Your task to perform on an android device: Go to CNN.com Image 0: 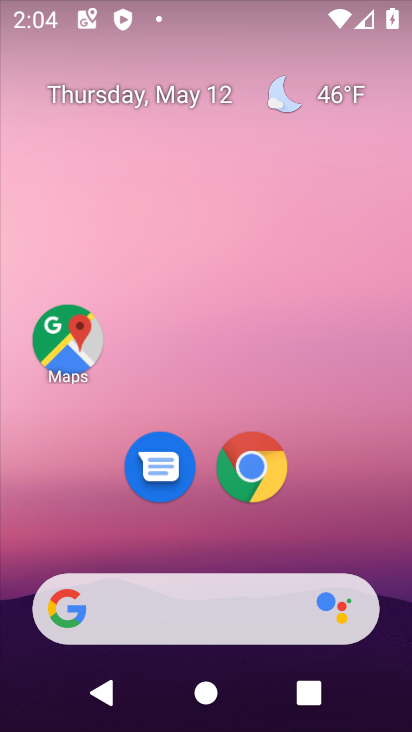
Step 0: drag from (314, 533) to (304, 490)
Your task to perform on an android device: Go to CNN.com Image 1: 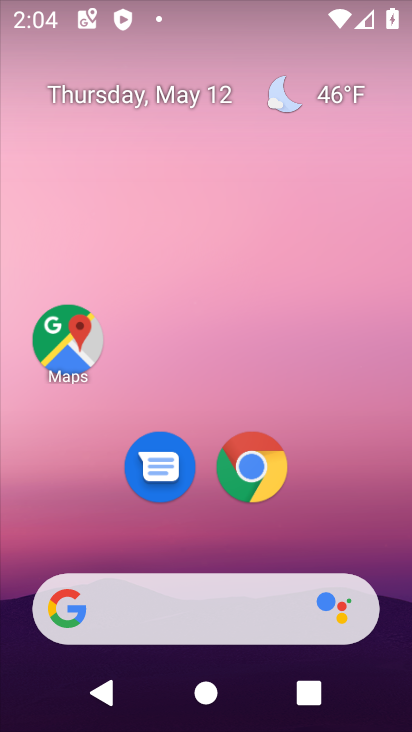
Step 1: click (267, 465)
Your task to perform on an android device: Go to CNN.com Image 2: 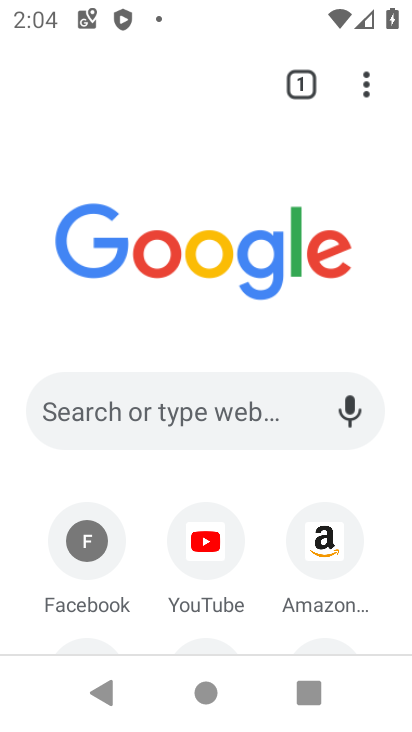
Step 2: click (354, 372)
Your task to perform on an android device: Go to CNN.com Image 3: 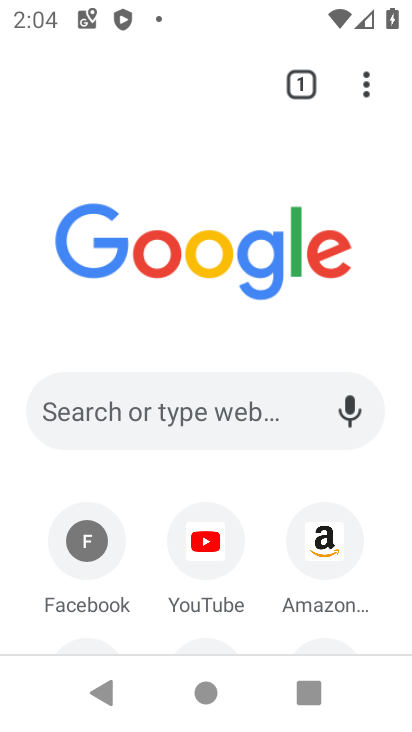
Step 3: click (318, 386)
Your task to perform on an android device: Go to CNN.com Image 4: 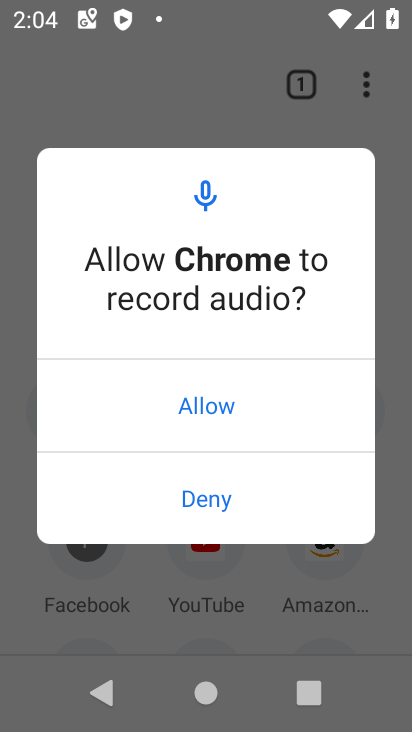
Step 4: click (333, 395)
Your task to perform on an android device: Go to CNN.com Image 5: 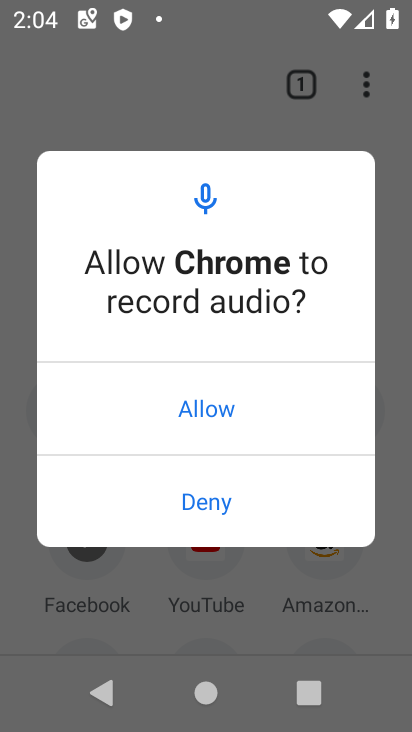
Step 5: click (333, 395)
Your task to perform on an android device: Go to CNN.com Image 6: 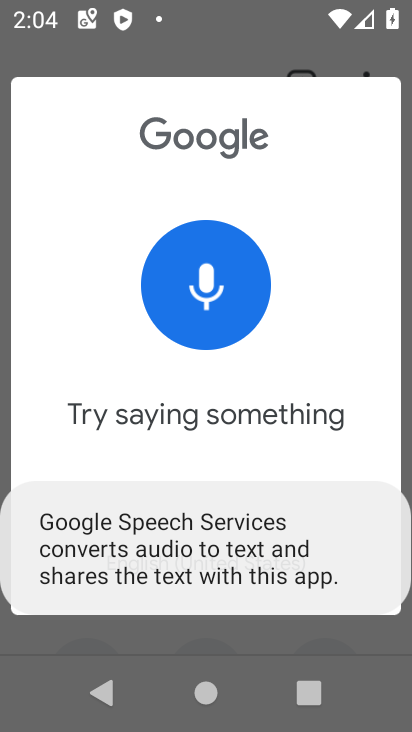
Step 6: click (307, 600)
Your task to perform on an android device: Go to CNN.com Image 7: 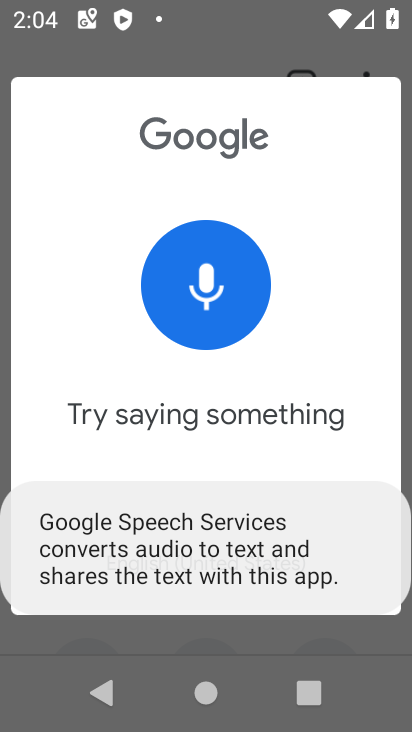
Step 7: click (307, 600)
Your task to perform on an android device: Go to CNN.com Image 8: 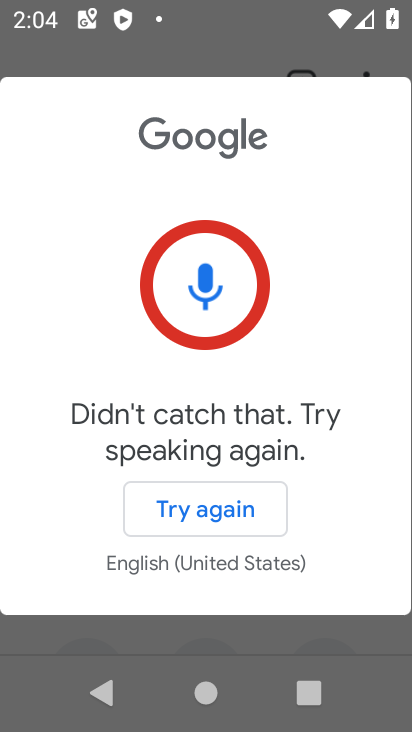
Step 8: press back button
Your task to perform on an android device: Go to CNN.com Image 9: 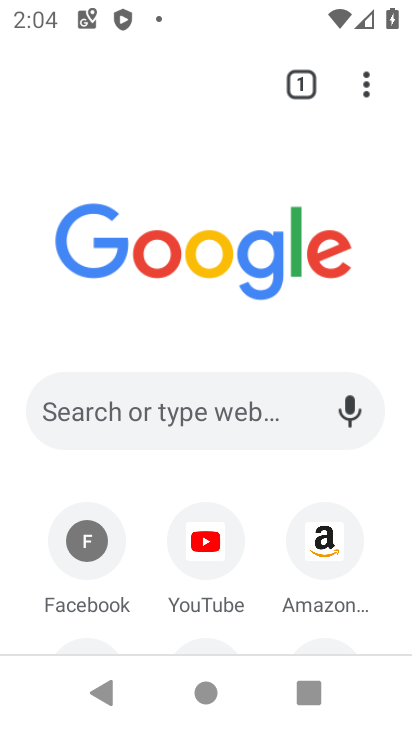
Step 9: click (243, 399)
Your task to perform on an android device: Go to CNN.com Image 10: 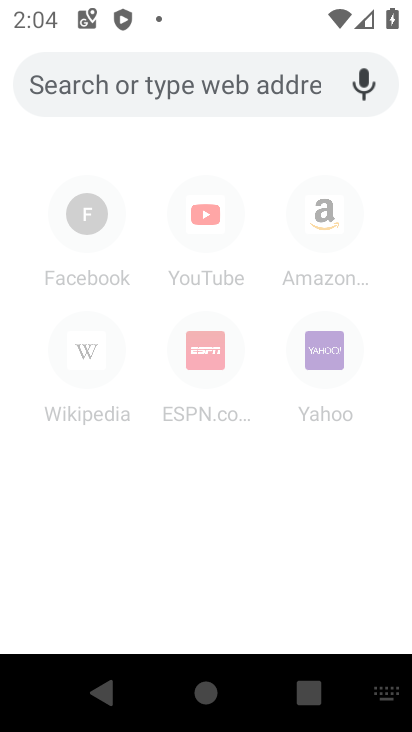
Step 10: type "cnn.com"
Your task to perform on an android device: Go to CNN.com Image 11: 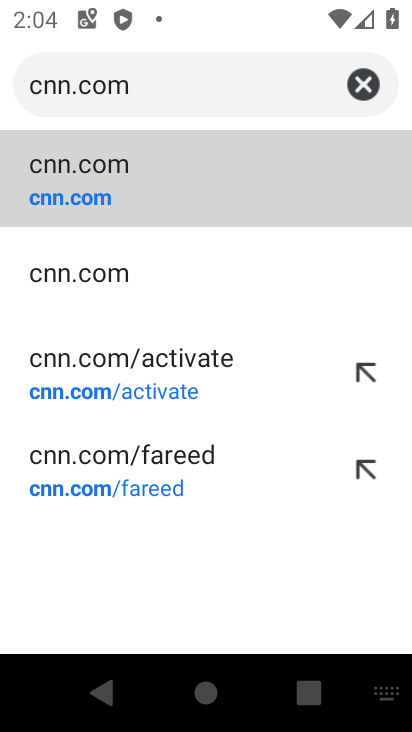
Step 11: click (256, 204)
Your task to perform on an android device: Go to CNN.com Image 12: 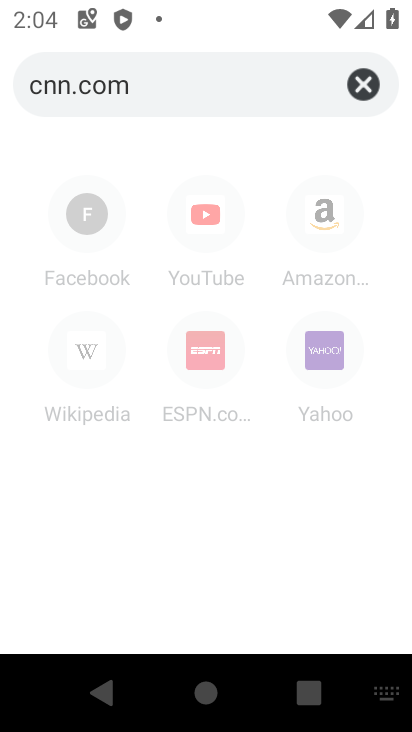
Step 12: click (256, 204)
Your task to perform on an android device: Go to CNN.com Image 13: 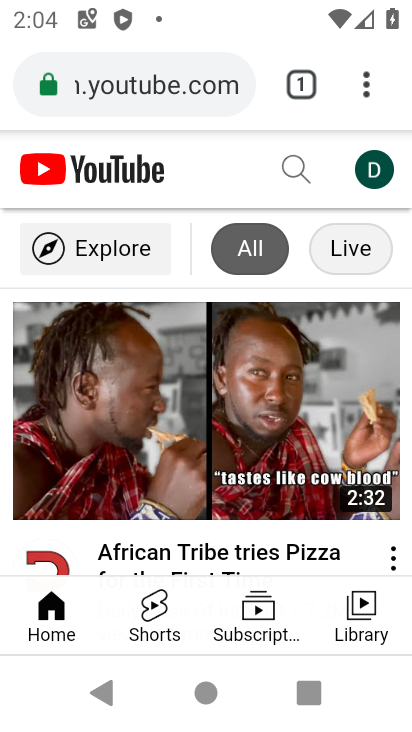
Step 13: click (220, 82)
Your task to perform on an android device: Go to CNN.com Image 14: 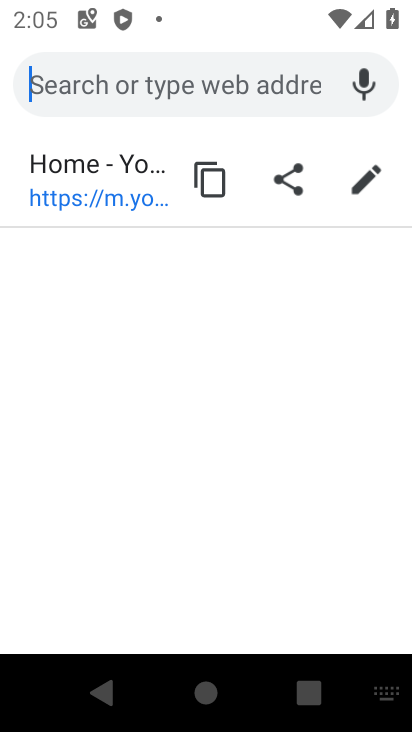
Step 14: type "cnn.com"
Your task to perform on an android device: Go to CNN.com Image 15: 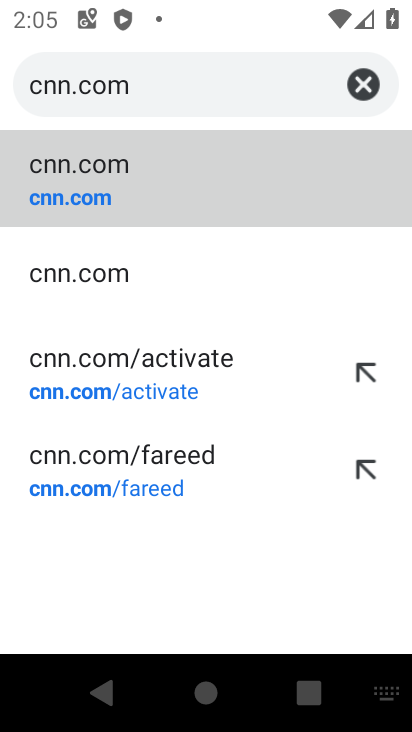
Step 15: click (225, 185)
Your task to perform on an android device: Go to CNN.com Image 16: 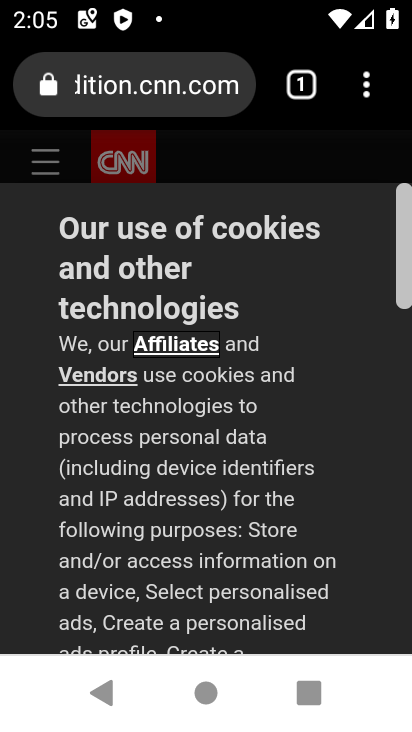
Step 16: task complete